Your task to perform on an android device: Open Yahoo.com Image 0: 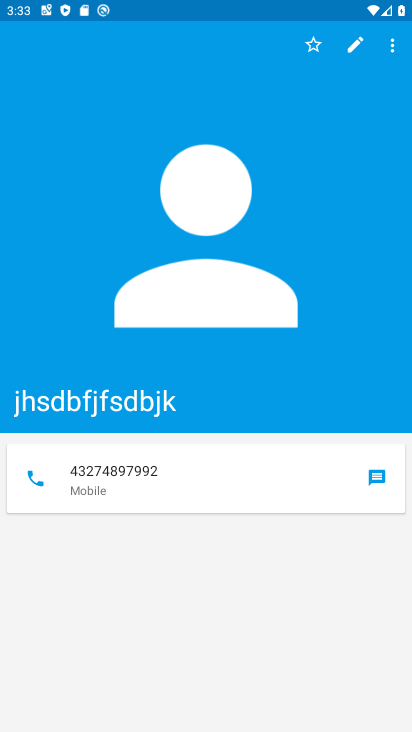
Step 0: press home button
Your task to perform on an android device: Open Yahoo.com Image 1: 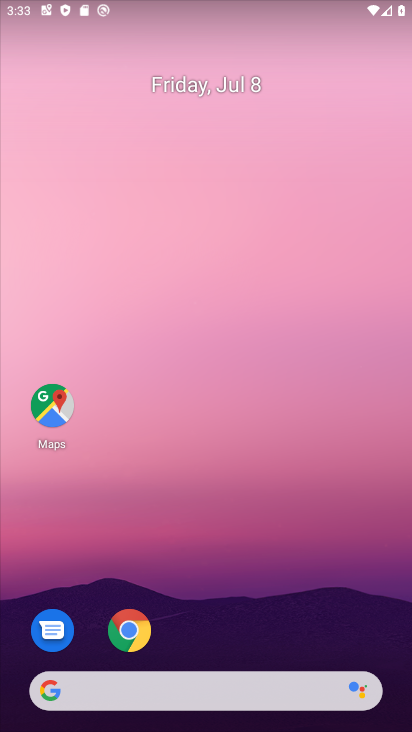
Step 1: drag from (284, 631) to (231, 26)
Your task to perform on an android device: Open Yahoo.com Image 2: 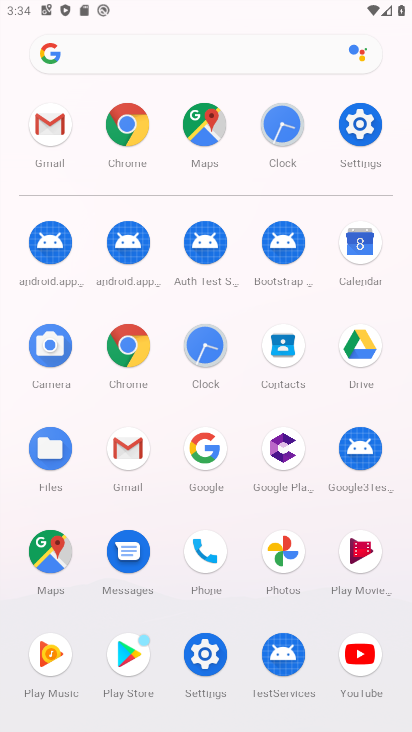
Step 2: click (171, 50)
Your task to perform on an android device: Open Yahoo.com Image 3: 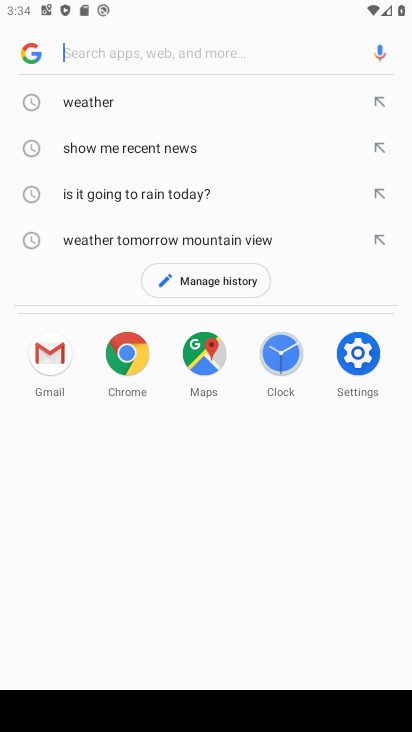
Step 3: type "yahoo.com"
Your task to perform on an android device: Open Yahoo.com Image 4: 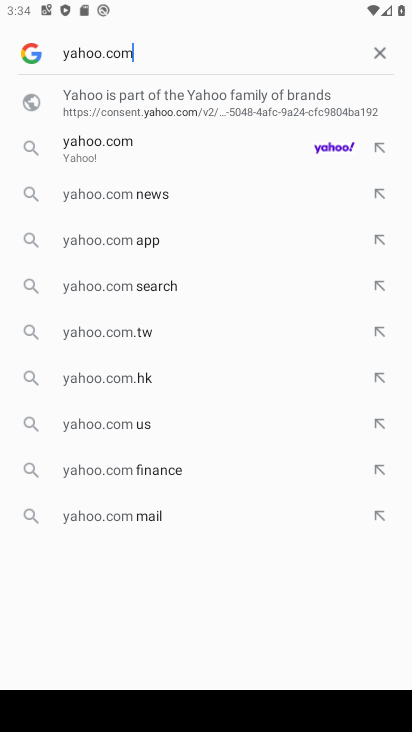
Step 4: click (197, 120)
Your task to perform on an android device: Open Yahoo.com Image 5: 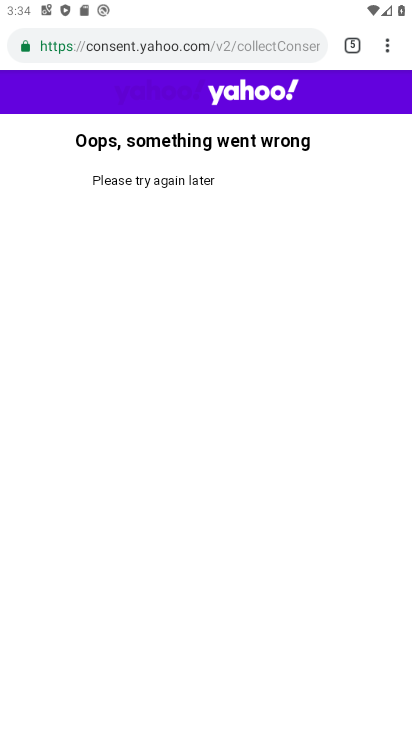
Step 5: task complete